Your task to perform on an android device: all mails in gmail Image 0: 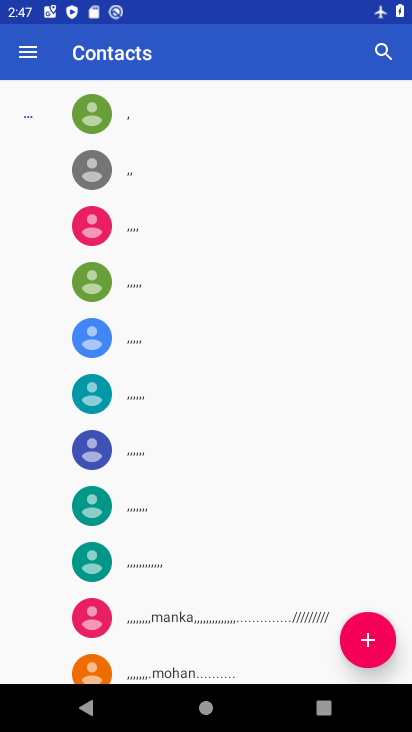
Step 0: press home button
Your task to perform on an android device: all mails in gmail Image 1: 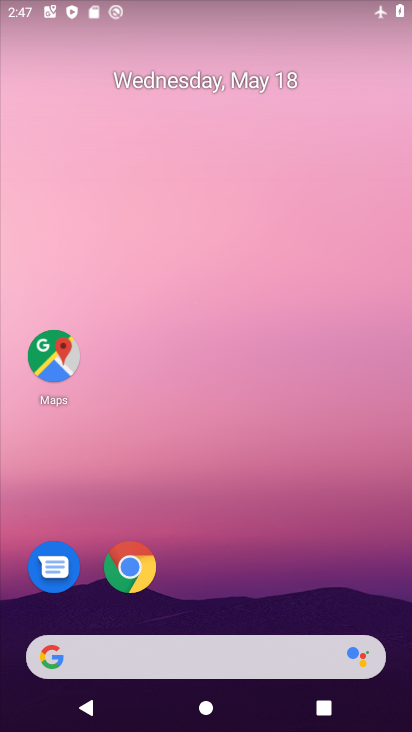
Step 1: drag from (224, 504) to (228, 268)
Your task to perform on an android device: all mails in gmail Image 2: 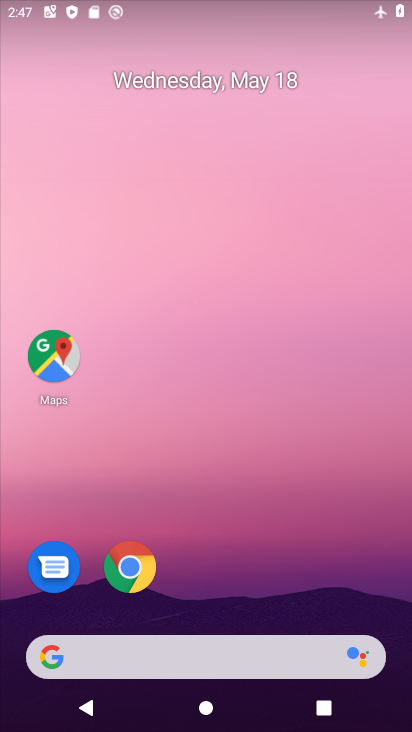
Step 2: drag from (214, 590) to (243, 296)
Your task to perform on an android device: all mails in gmail Image 3: 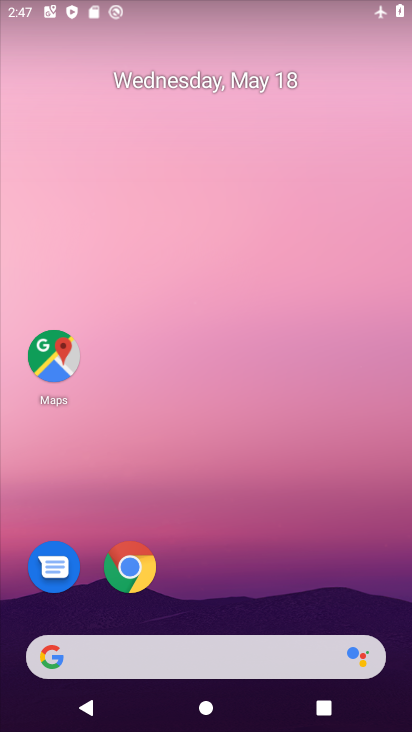
Step 3: drag from (235, 487) to (235, 314)
Your task to perform on an android device: all mails in gmail Image 4: 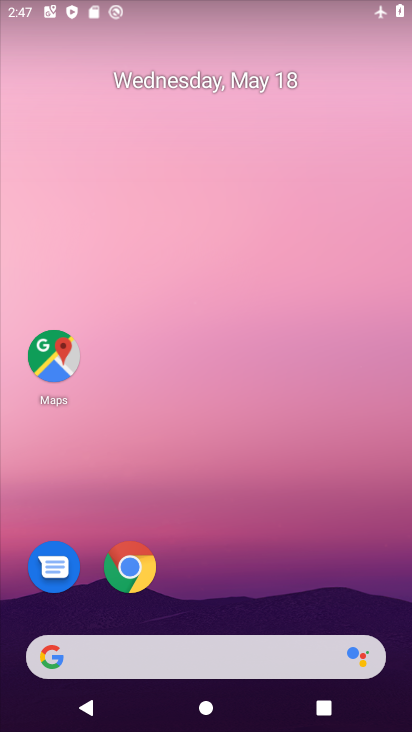
Step 4: drag from (217, 707) to (255, 269)
Your task to perform on an android device: all mails in gmail Image 5: 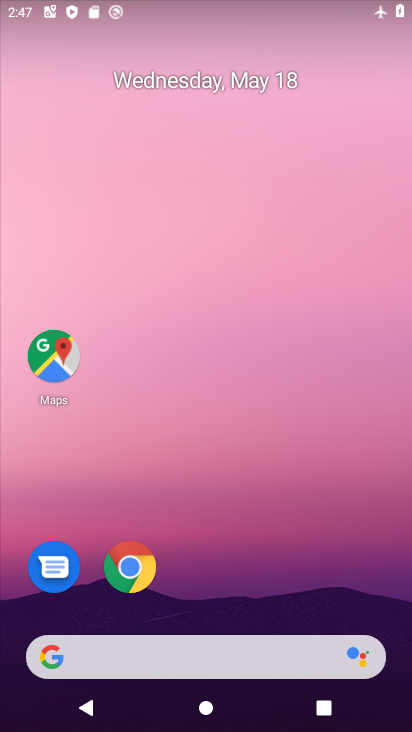
Step 5: drag from (231, 611) to (213, 210)
Your task to perform on an android device: all mails in gmail Image 6: 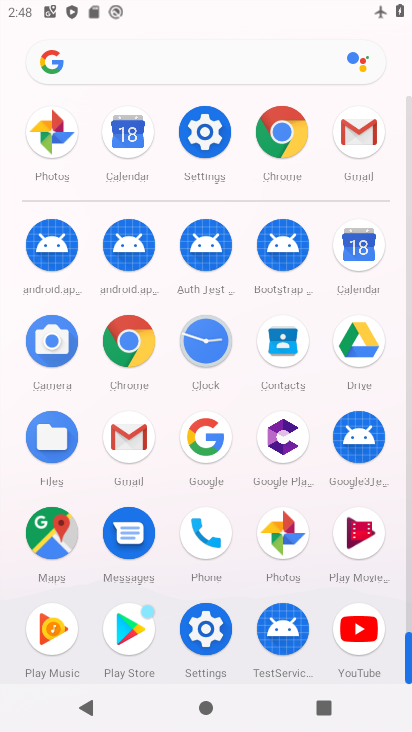
Step 6: click (347, 128)
Your task to perform on an android device: all mails in gmail Image 7: 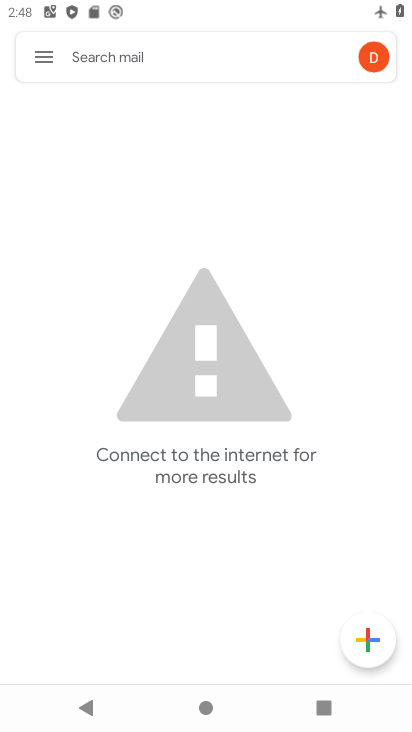
Step 7: click (47, 51)
Your task to perform on an android device: all mails in gmail Image 8: 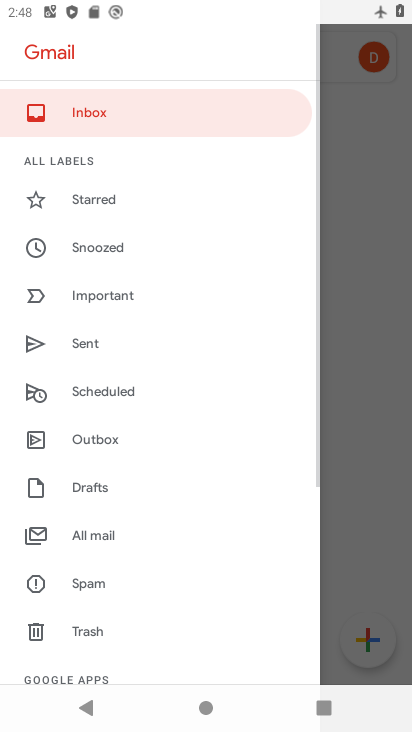
Step 8: click (122, 523)
Your task to perform on an android device: all mails in gmail Image 9: 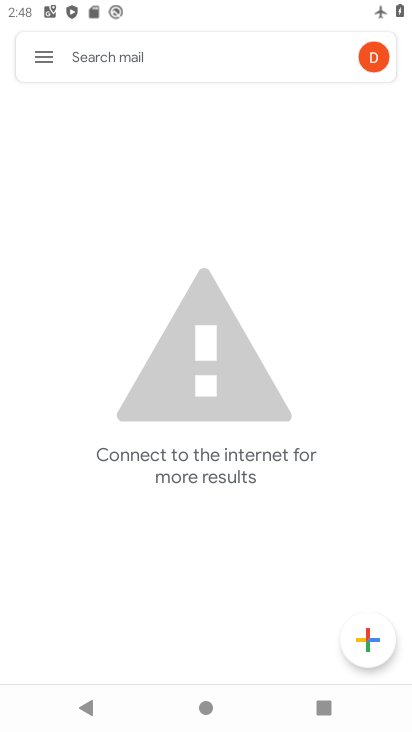
Step 9: task complete